Your task to perform on an android device: open a bookmark in the chrome app Image 0: 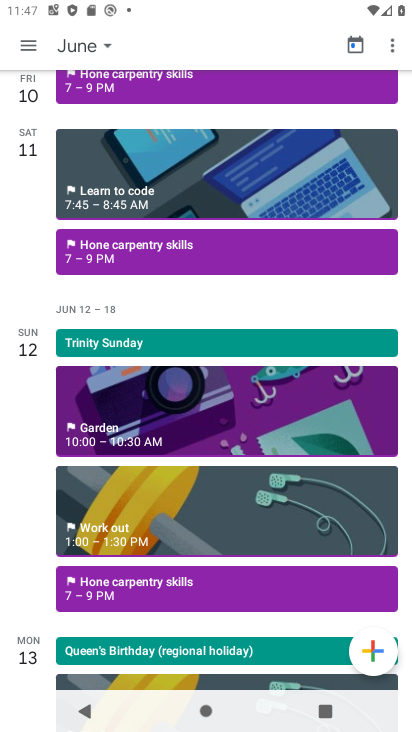
Step 0: press home button
Your task to perform on an android device: open a bookmark in the chrome app Image 1: 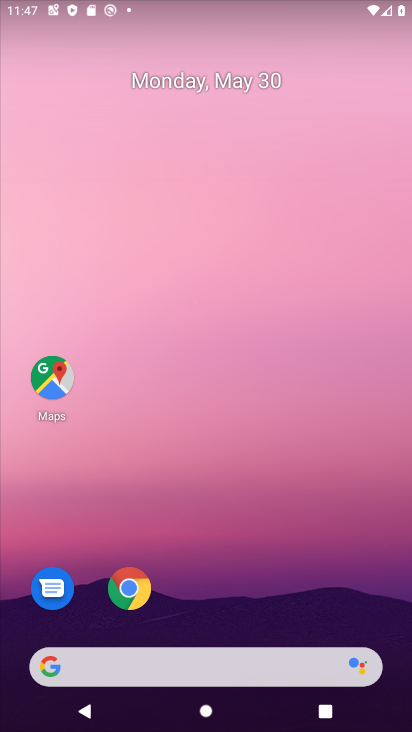
Step 1: click (135, 583)
Your task to perform on an android device: open a bookmark in the chrome app Image 2: 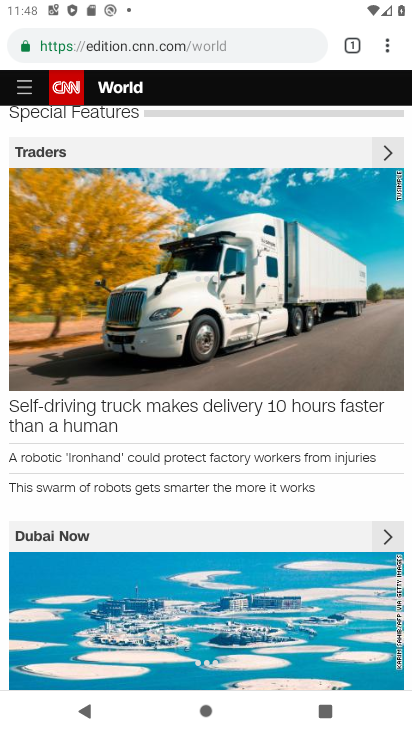
Step 2: click (390, 42)
Your task to perform on an android device: open a bookmark in the chrome app Image 3: 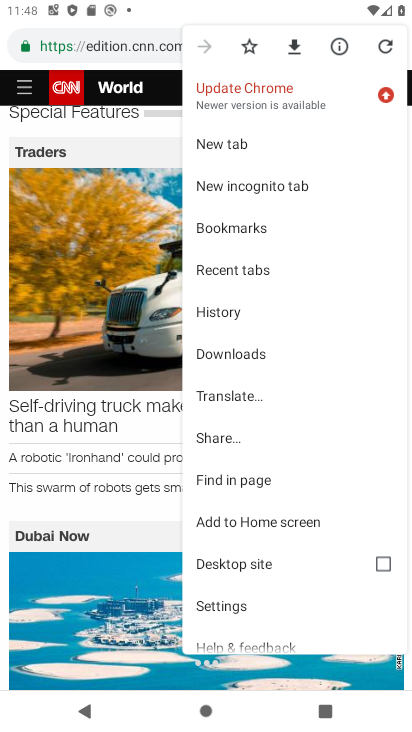
Step 3: click (282, 225)
Your task to perform on an android device: open a bookmark in the chrome app Image 4: 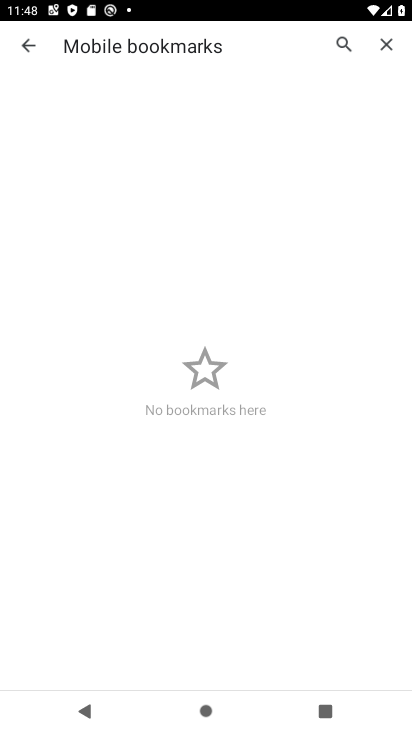
Step 4: task complete